Your task to perform on an android device: allow notifications from all sites in the chrome app Image 0: 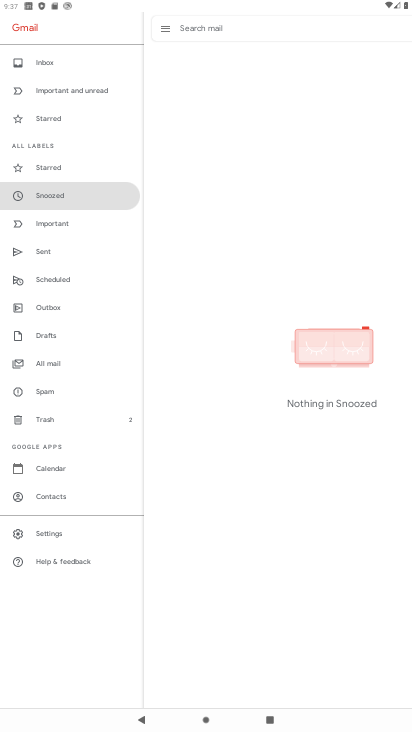
Step 0: press home button
Your task to perform on an android device: allow notifications from all sites in the chrome app Image 1: 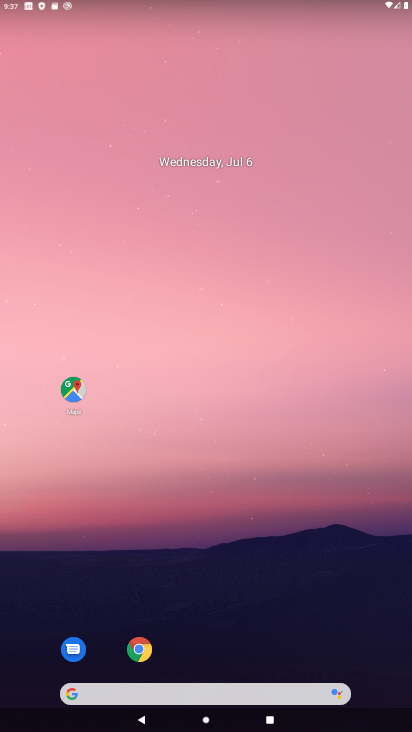
Step 1: drag from (192, 689) to (0, 42)
Your task to perform on an android device: allow notifications from all sites in the chrome app Image 2: 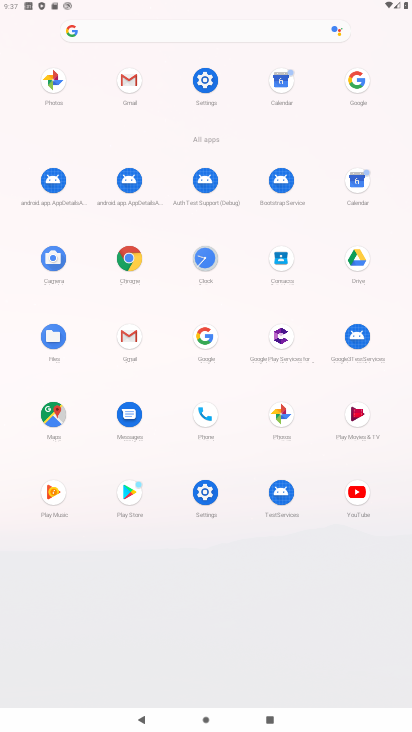
Step 2: click (128, 272)
Your task to perform on an android device: allow notifications from all sites in the chrome app Image 3: 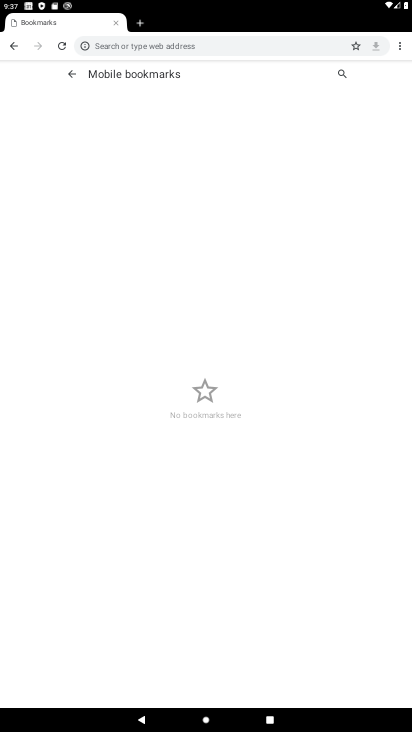
Step 3: drag from (404, 50) to (328, 212)
Your task to perform on an android device: allow notifications from all sites in the chrome app Image 4: 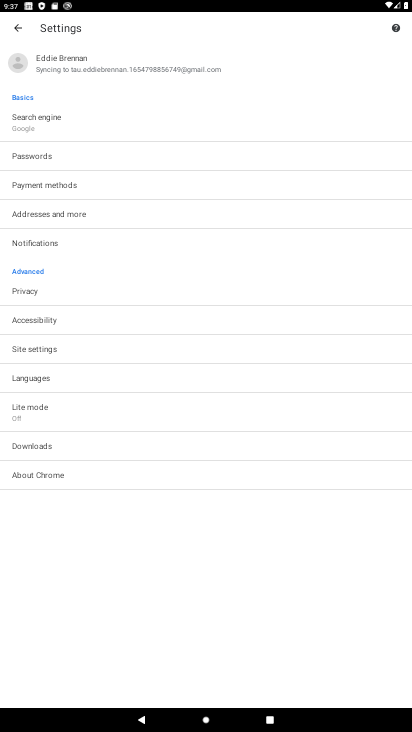
Step 4: click (39, 349)
Your task to perform on an android device: allow notifications from all sites in the chrome app Image 5: 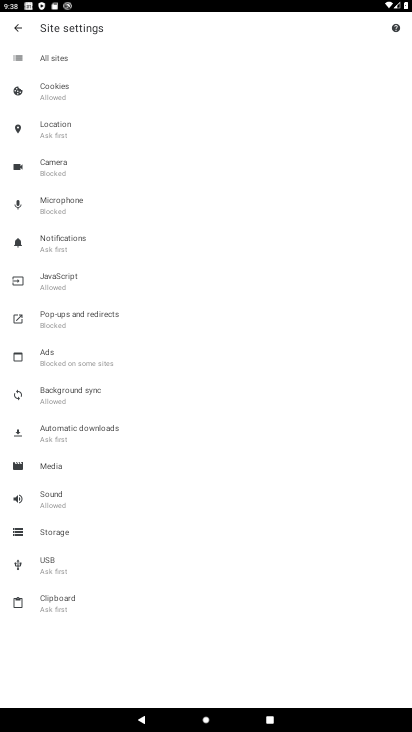
Step 5: click (122, 238)
Your task to perform on an android device: allow notifications from all sites in the chrome app Image 6: 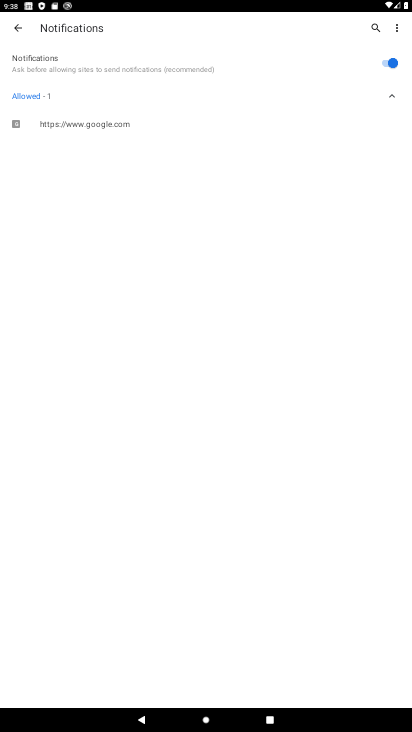
Step 6: task complete